Your task to perform on an android device: Open Google Maps Image 0: 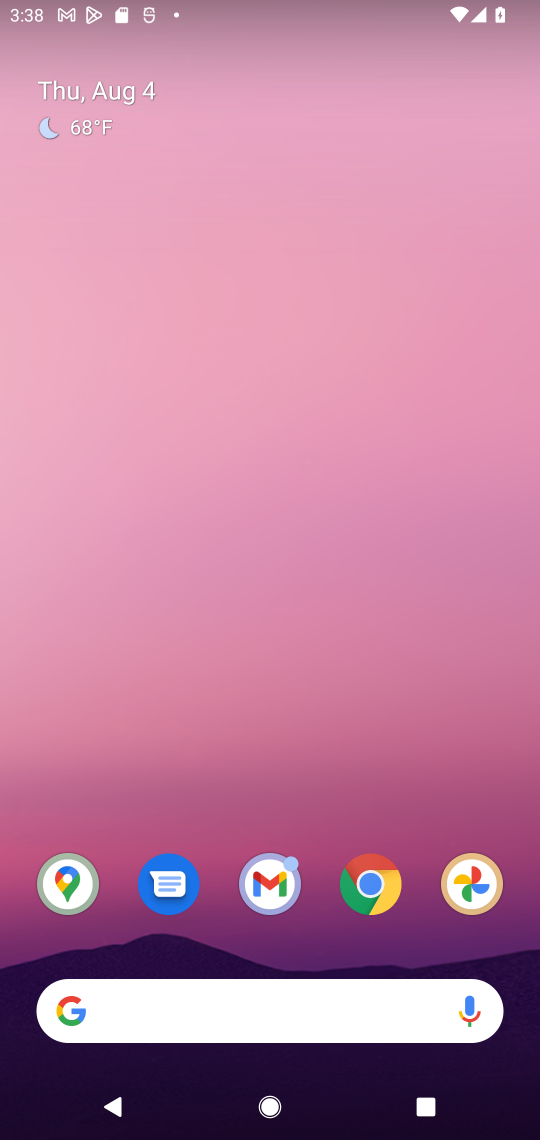
Step 0: click (71, 878)
Your task to perform on an android device: Open Google Maps Image 1: 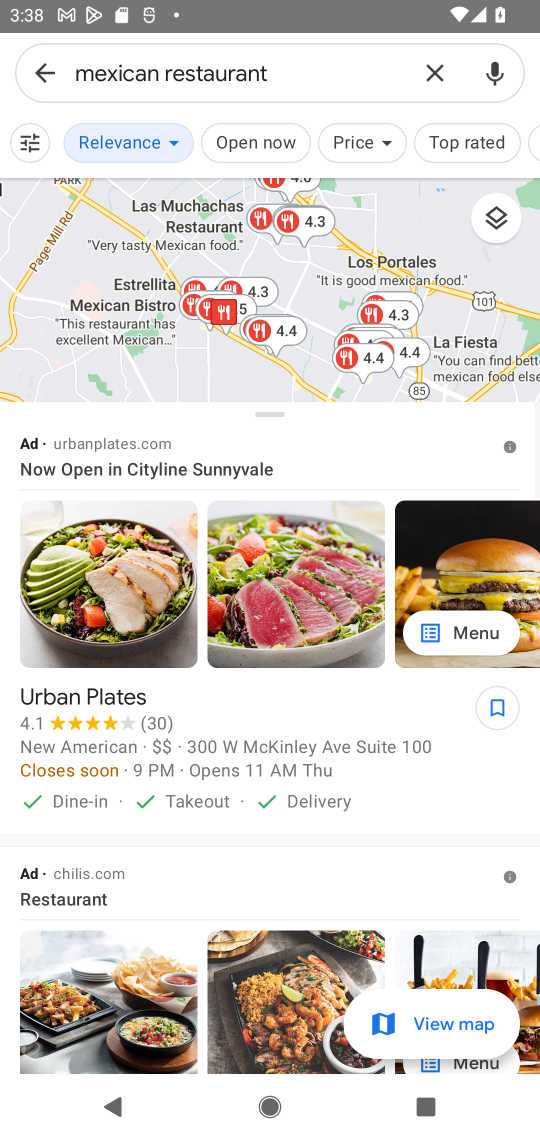
Step 1: task complete